Your task to perform on an android device: uninstall "Google Play Music" Image 0: 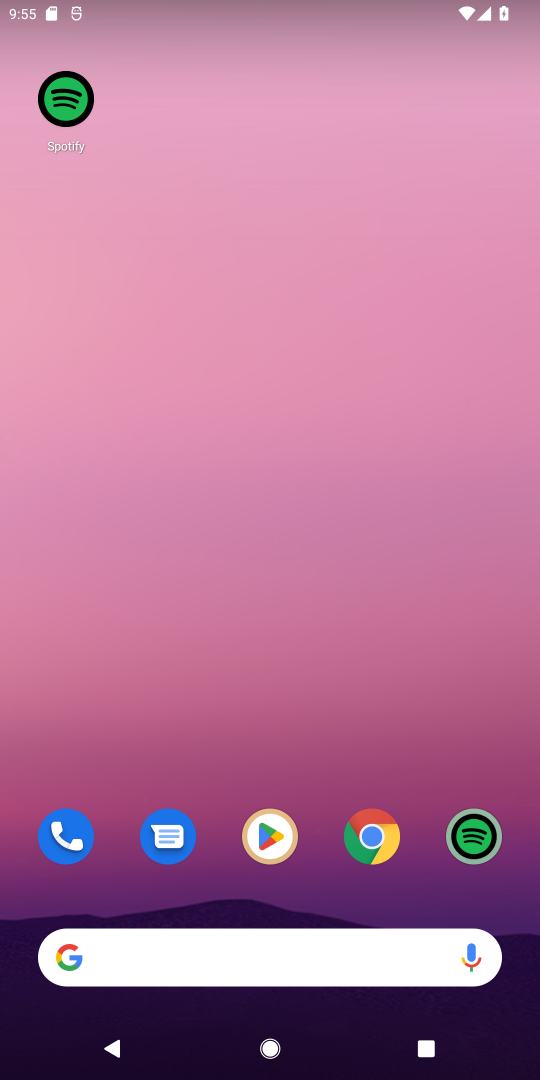
Step 0: click (274, 819)
Your task to perform on an android device: uninstall "Google Play Music" Image 1: 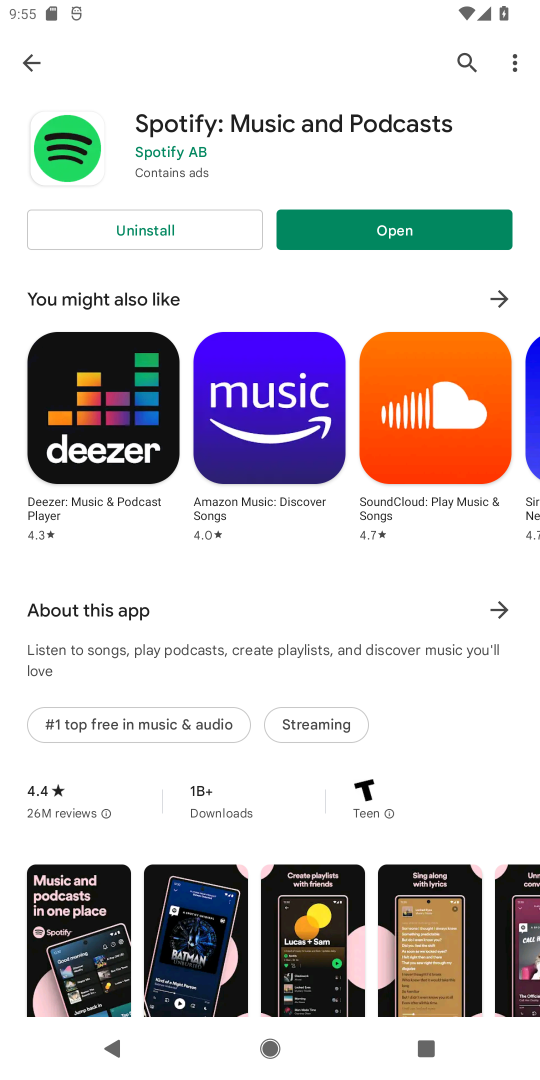
Step 1: click (461, 55)
Your task to perform on an android device: uninstall "Google Play Music" Image 2: 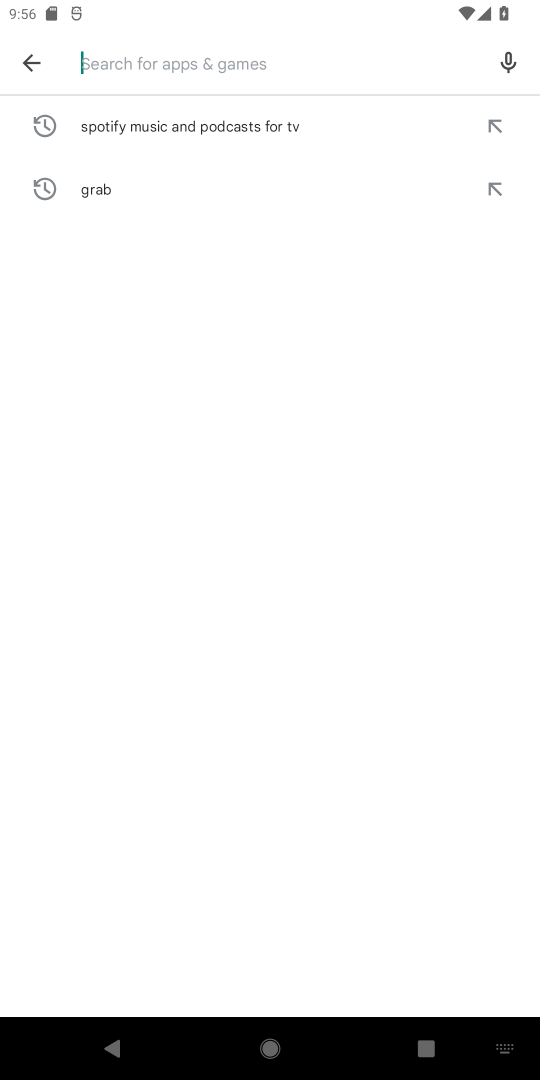
Step 2: type "Google Play Music"
Your task to perform on an android device: uninstall "Google Play Music" Image 3: 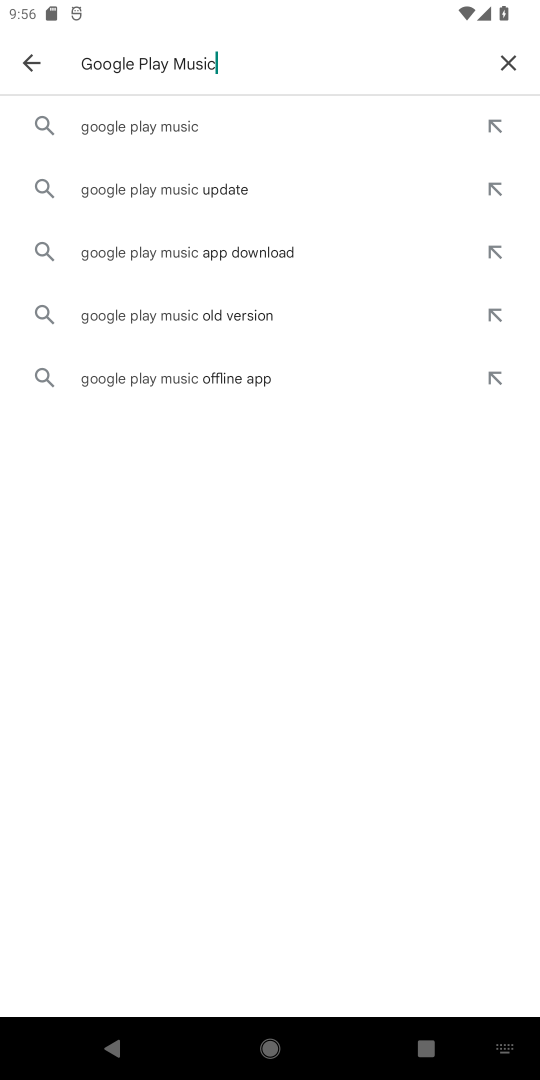
Step 3: click (187, 131)
Your task to perform on an android device: uninstall "Google Play Music" Image 4: 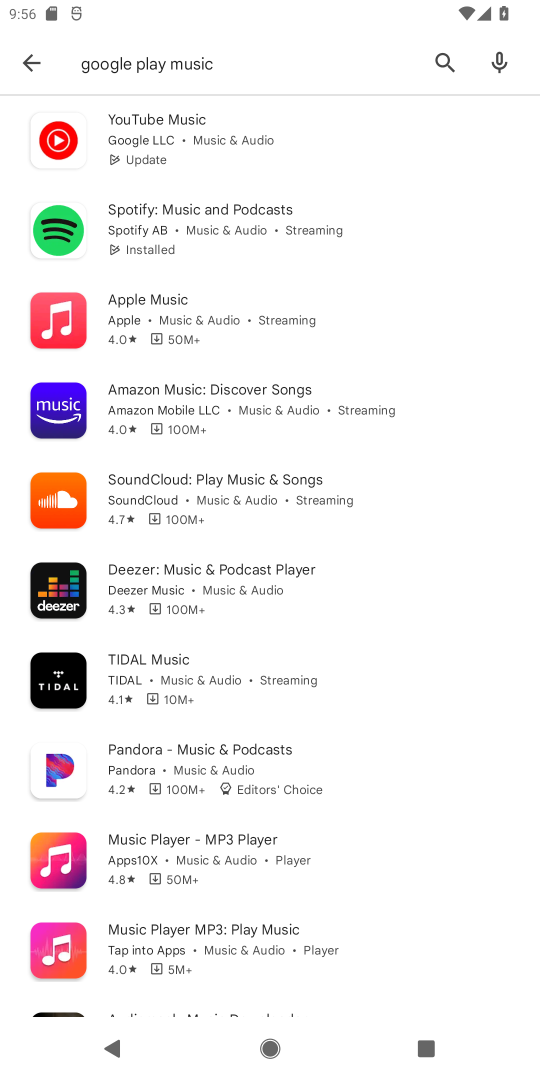
Step 4: task complete